Your task to perform on an android device: turn pop-ups off in chrome Image 0: 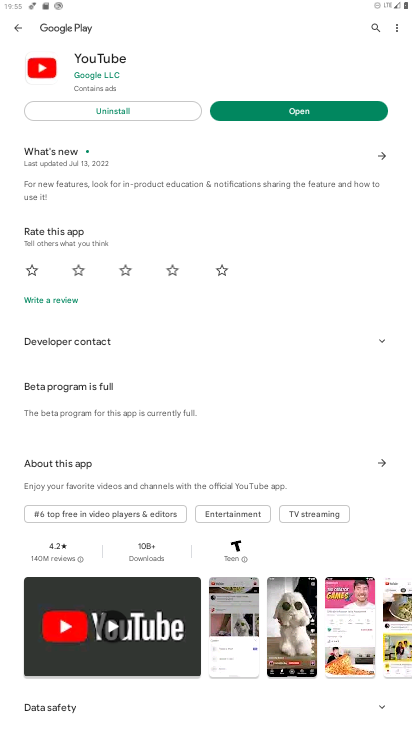
Step 0: press home button
Your task to perform on an android device: turn pop-ups off in chrome Image 1: 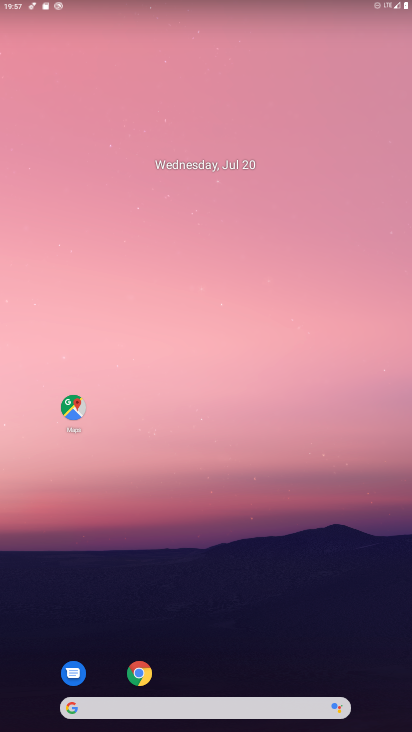
Step 1: drag from (299, 640) to (191, 35)
Your task to perform on an android device: turn pop-ups off in chrome Image 2: 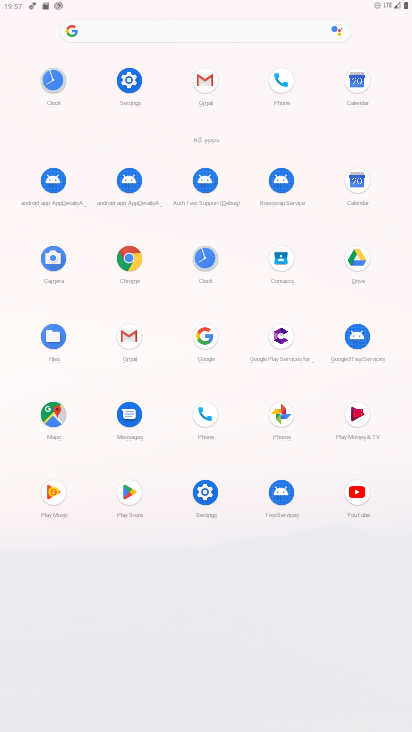
Step 2: click (123, 252)
Your task to perform on an android device: turn pop-ups off in chrome Image 3: 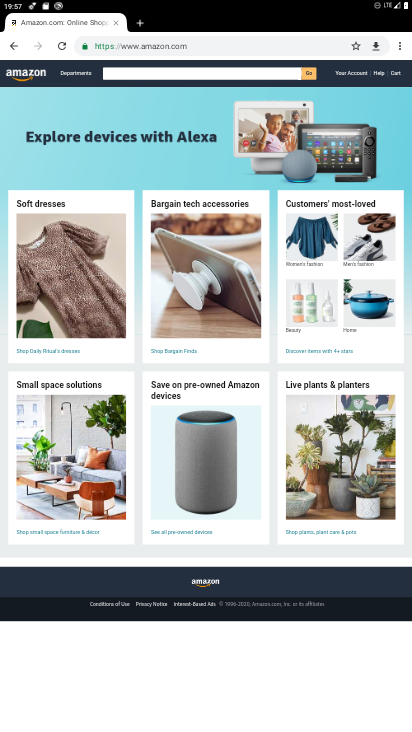
Step 3: drag from (398, 51) to (312, 299)
Your task to perform on an android device: turn pop-ups off in chrome Image 4: 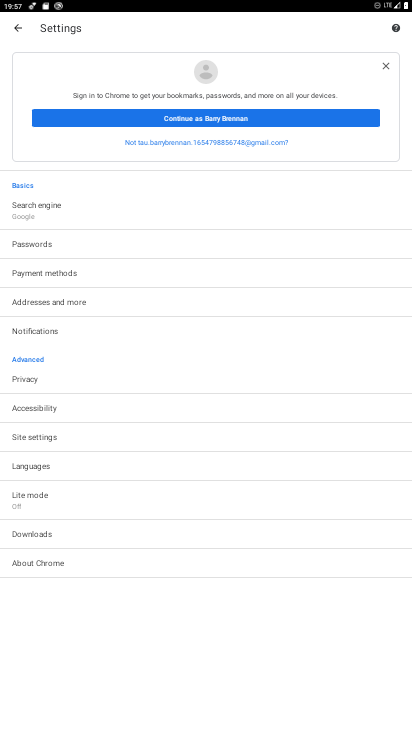
Step 4: click (23, 441)
Your task to perform on an android device: turn pop-ups off in chrome Image 5: 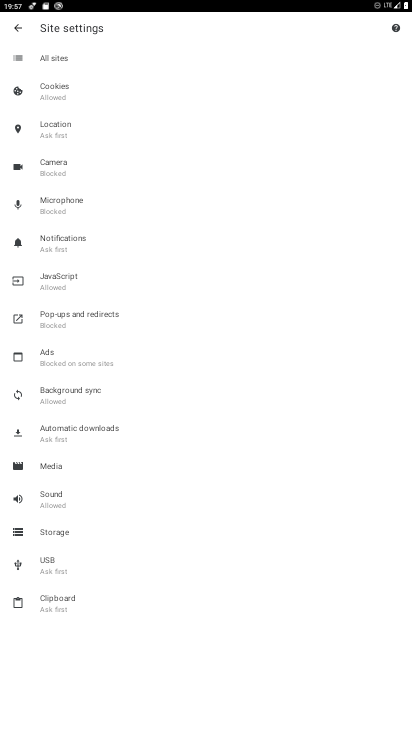
Step 5: click (76, 325)
Your task to perform on an android device: turn pop-ups off in chrome Image 6: 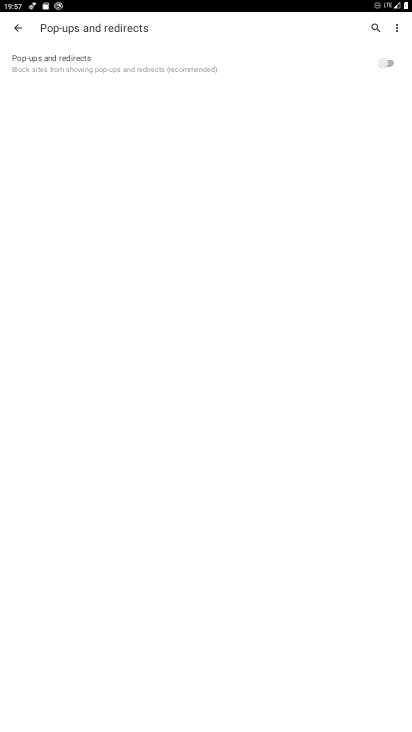
Step 6: task complete